Your task to perform on an android device: empty trash in google photos Image 0: 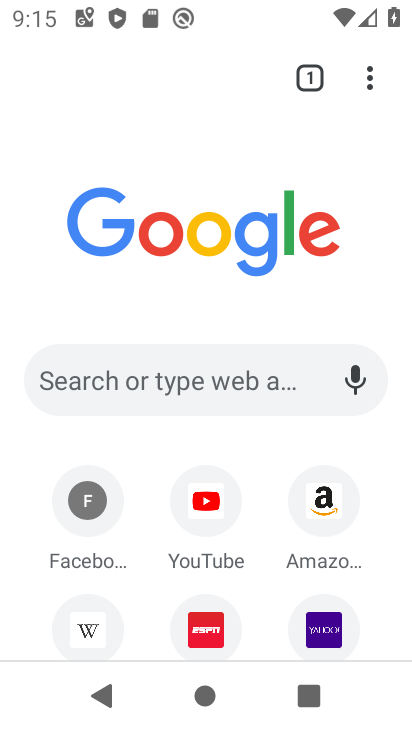
Step 0: press home button
Your task to perform on an android device: empty trash in google photos Image 1: 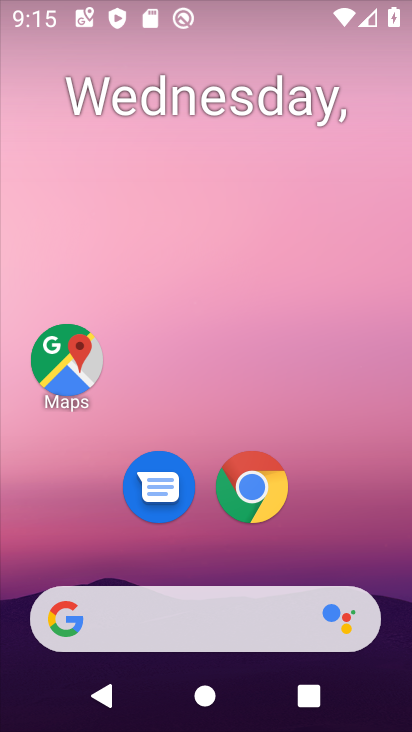
Step 1: drag from (387, 555) to (402, 131)
Your task to perform on an android device: empty trash in google photos Image 2: 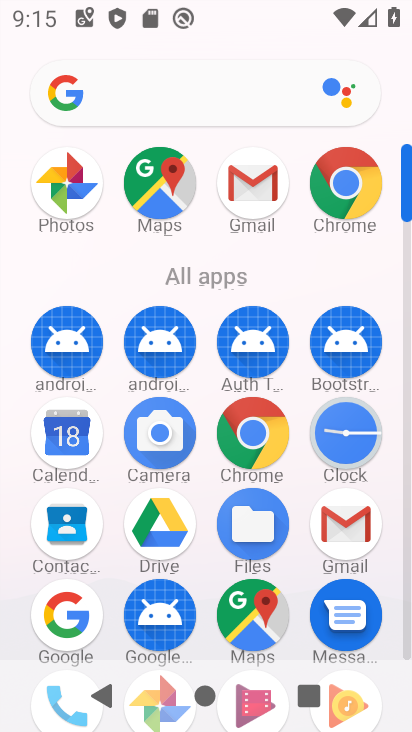
Step 2: drag from (188, 656) to (209, 407)
Your task to perform on an android device: empty trash in google photos Image 3: 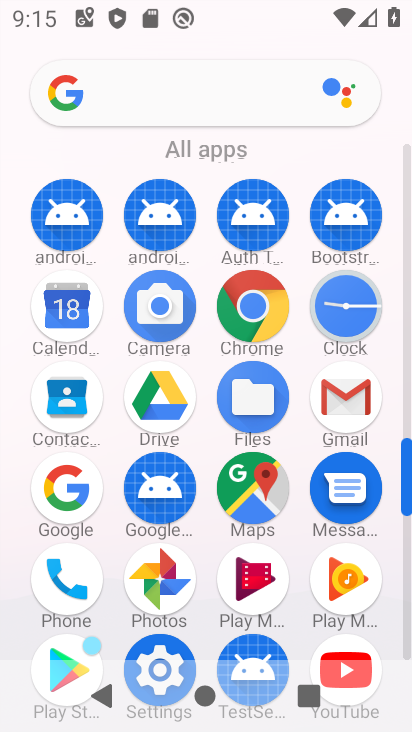
Step 3: click (168, 604)
Your task to perform on an android device: empty trash in google photos Image 4: 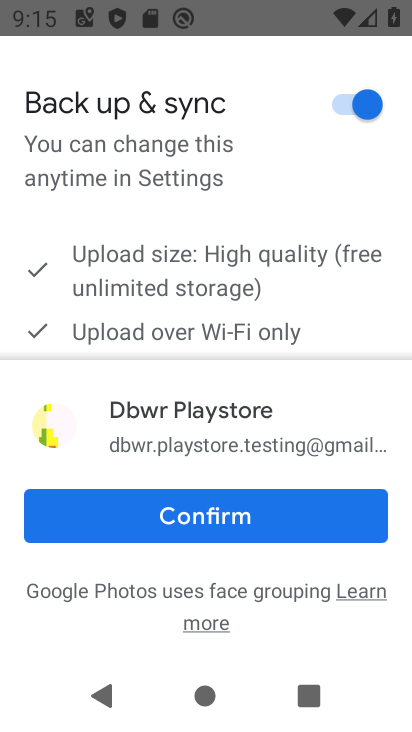
Step 4: click (185, 537)
Your task to perform on an android device: empty trash in google photos Image 5: 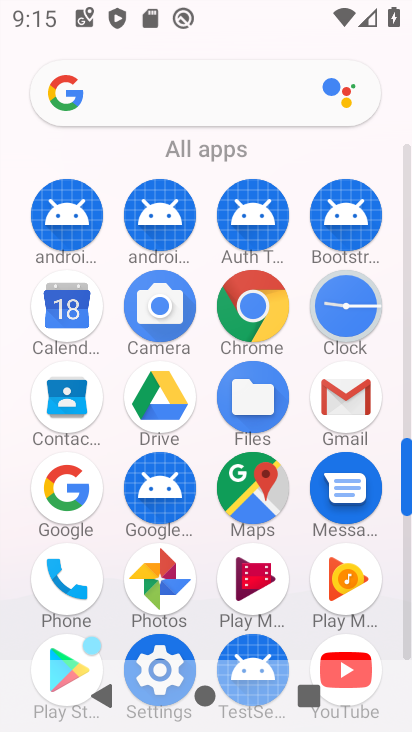
Step 5: click (148, 585)
Your task to perform on an android device: empty trash in google photos Image 6: 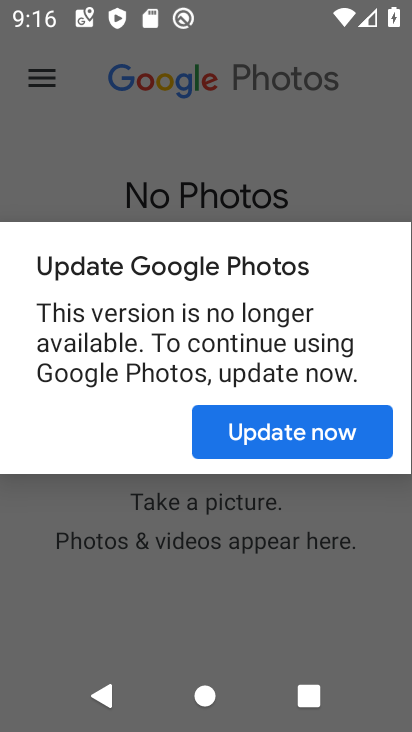
Step 6: click (269, 436)
Your task to perform on an android device: empty trash in google photos Image 7: 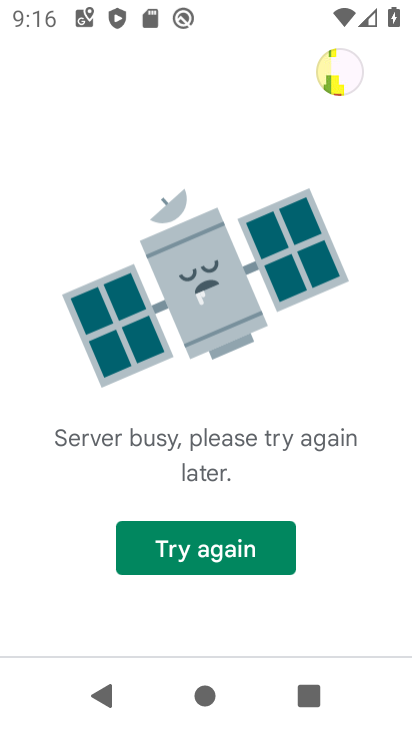
Step 7: task complete